Your task to perform on an android device: empty trash in google photos Image 0: 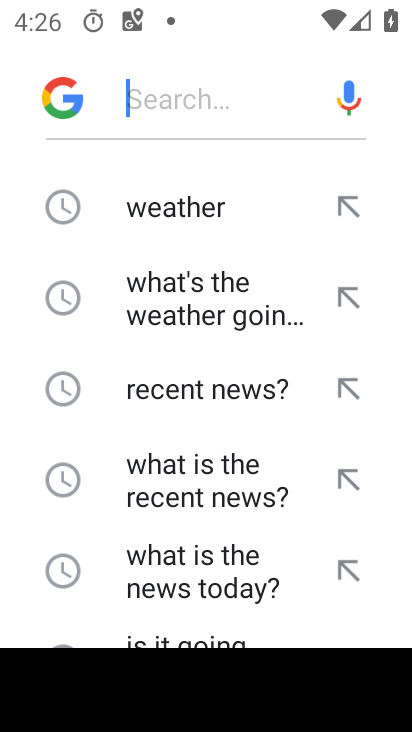
Step 0: press home button
Your task to perform on an android device: empty trash in google photos Image 1: 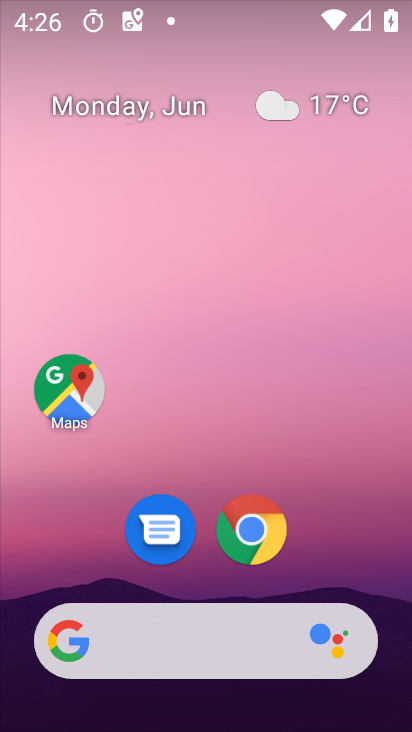
Step 1: drag from (318, 546) to (268, 31)
Your task to perform on an android device: empty trash in google photos Image 2: 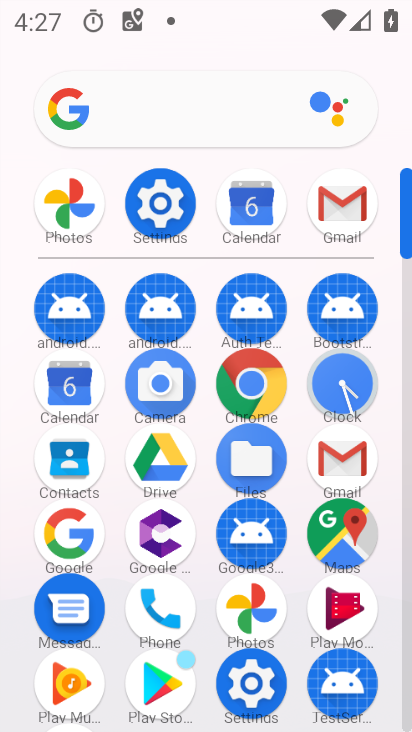
Step 2: click (66, 207)
Your task to perform on an android device: empty trash in google photos Image 3: 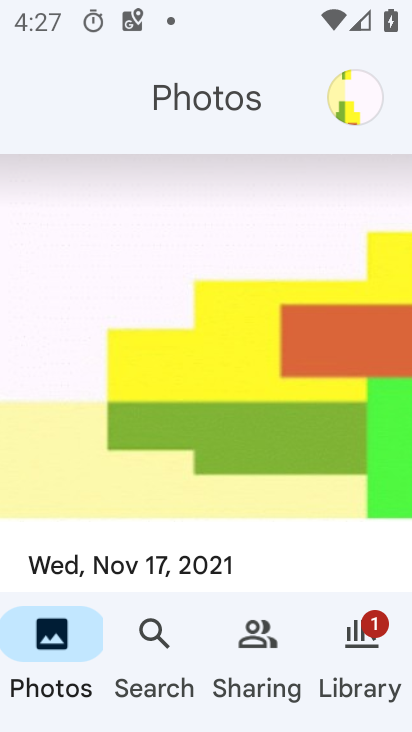
Step 3: click (363, 625)
Your task to perform on an android device: empty trash in google photos Image 4: 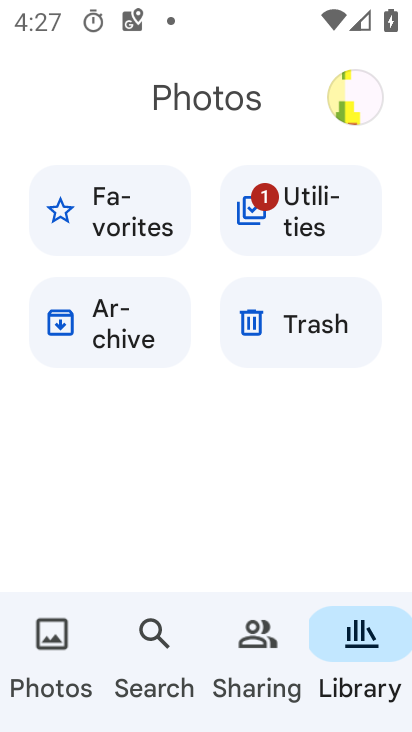
Step 4: click (316, 332)
Your task to perform on an android device: empty trash in google photos Image 5: 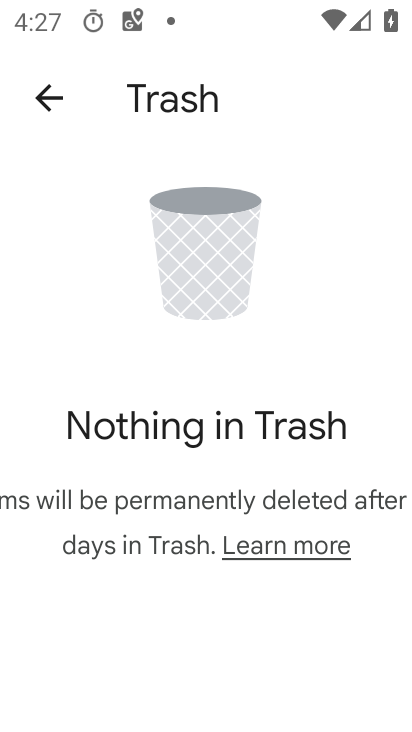
Step 5: task complete